Your task to perform on an android device: Open Youtube and go to the subscriptions tab Image 0: 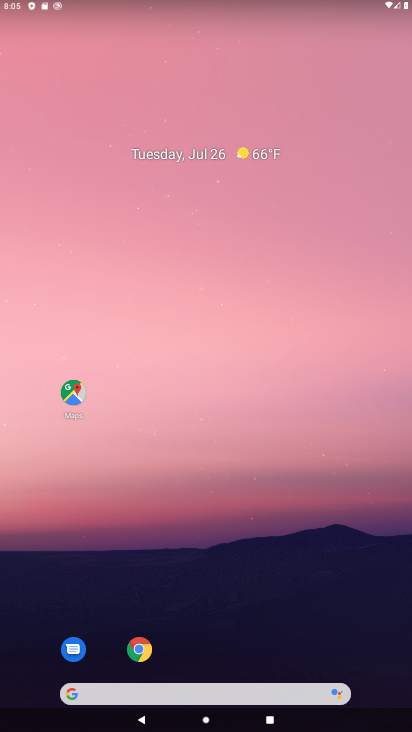
Step 0: drag from (261, 617) to (329, 235)
Your task to perform on an android device: Open Youtube and go to the subscriptions tab Image 1: 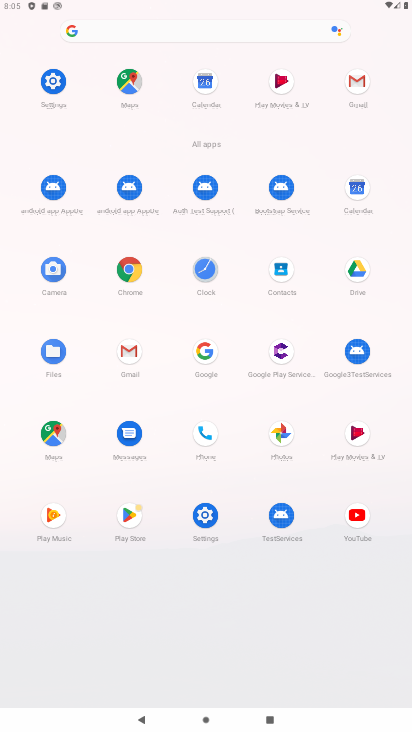
Step 1: click (334, 508)
Your task to perform on an android device: Open Youtube and go to the subscriptions tab Image 2: 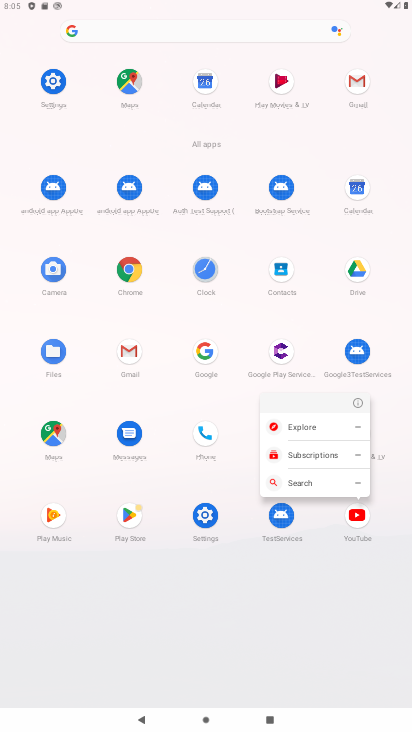
Step 2: click (345, 519)
Your task to perform on an android device: Open Youtube and go to the subscriptions tab Image 3: 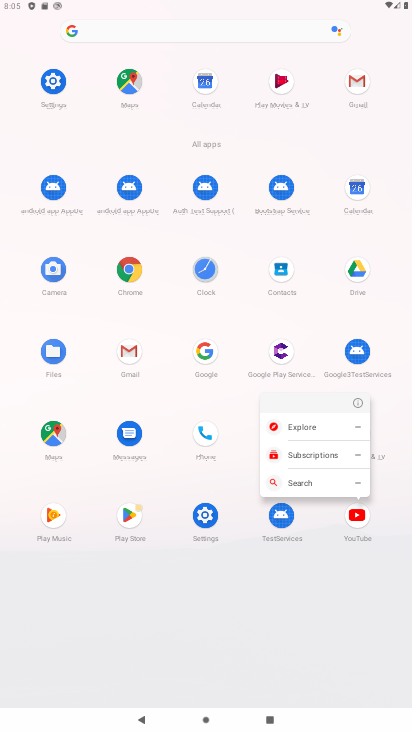
Step 3: click (345, 519)
Your task to perform on an android device: Open Youtube and go to the subscriptions tab Image 4: 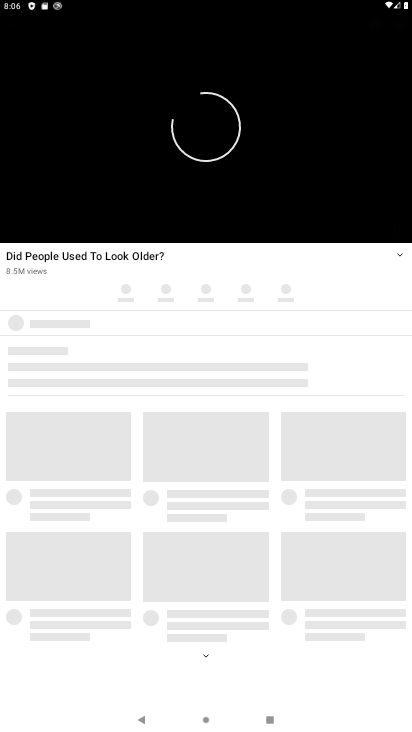
Step 4: drag from (218, 161) to (395, 715)
Your task to perform on an android device: Open Youtube and go to the subscriptions tab Image 5: 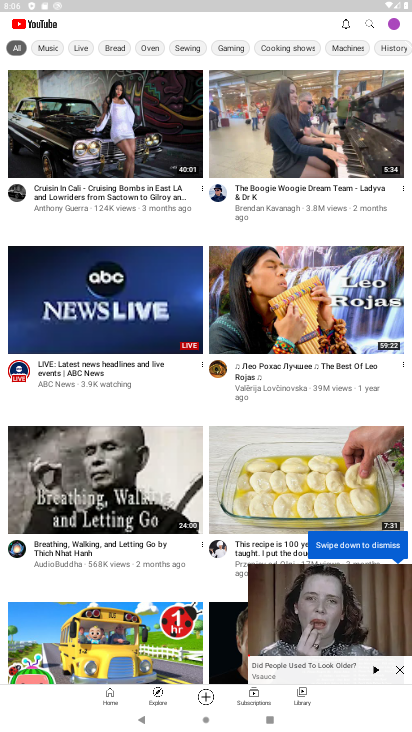
Step 5: click (259, 700)
Your task to perform on an android device: Open Youtube and go to the subscriptions tab Image 6: 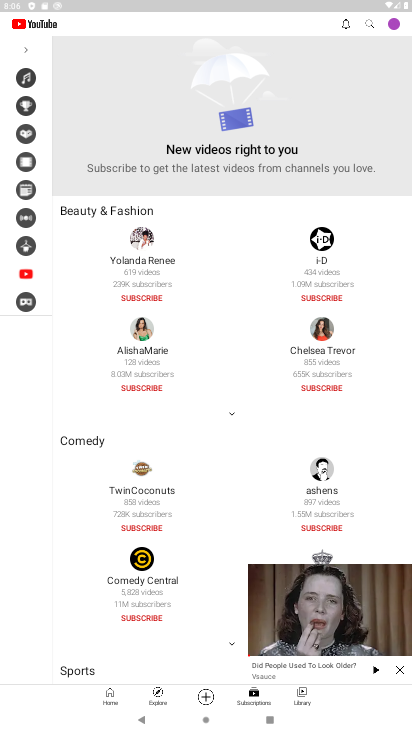
Step 6: click (399, 670)
Your task to perform on an android device: Open Youtube and go to the subscriptions tab Image 7: 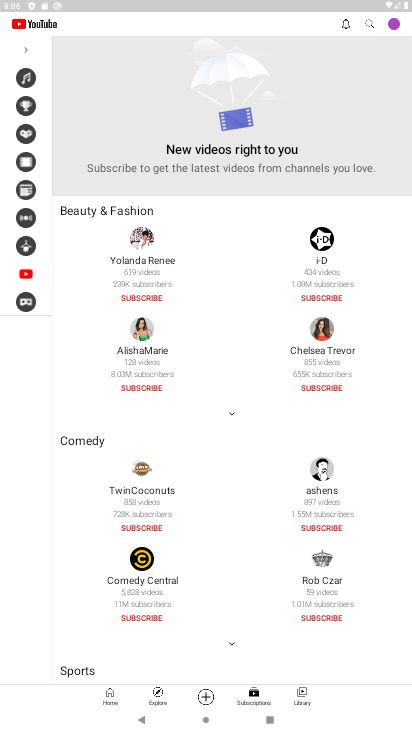
Step 7: task complete